Your task to perform on an android device: Open wifi settings Image 0: 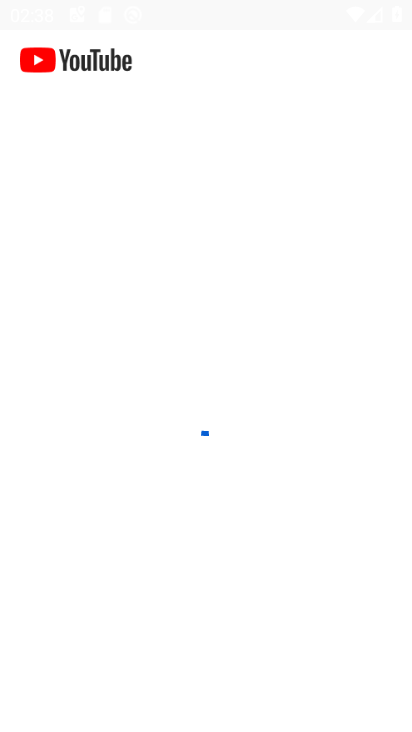
Step 0: click (154, 56)
Your task to perform on an android device: Open wifi settings Image 1: 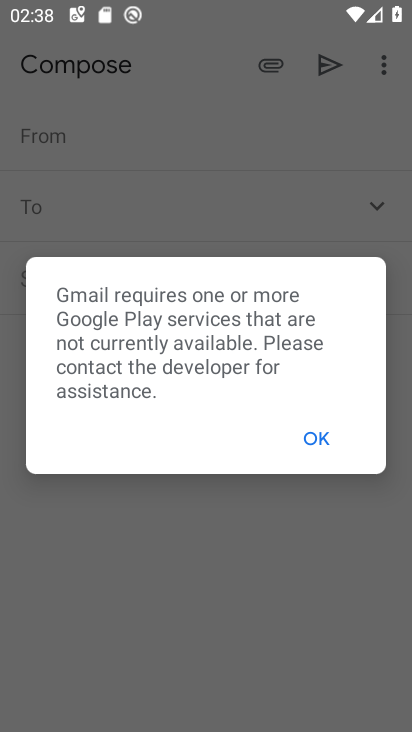
Step 1: press home button
Your task to perform on an android device: Open wifi settings Image 2: 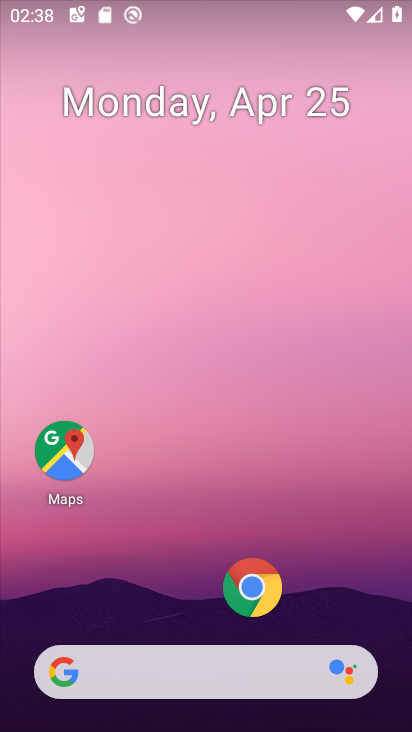
Step 2: drag from (206, 623) to (243, 113)
Your task to perform on an android device: Open wifi settings Image 3: 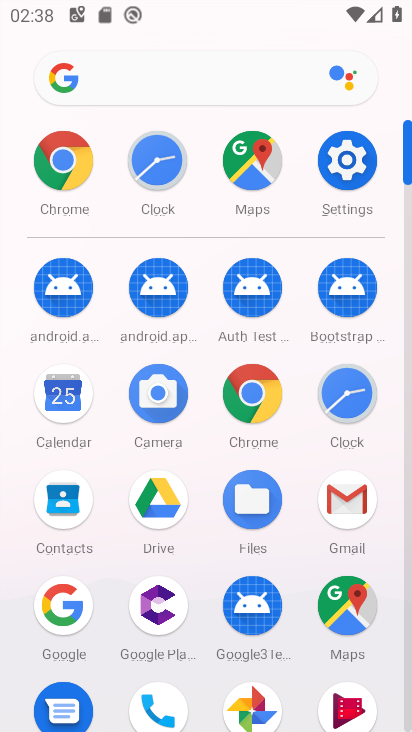
Step 3: click (345, 157)
Your task to perform on an android device: Open wifi settings Image 4: 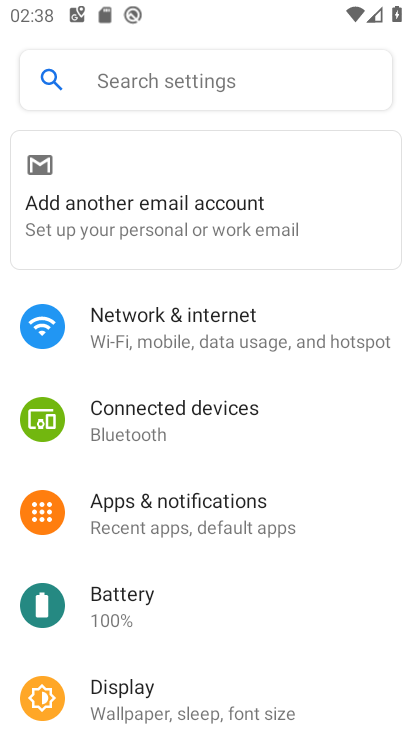
Step 4: click (279, 323)
Your task to perform on an android device: Open wifi settings Image 5: 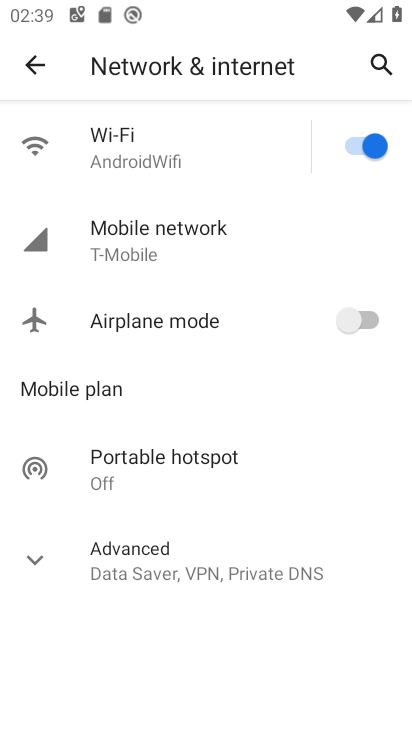
Step 5: click (227, 140)
Your task to perform on an android device: Open wifi settings Image 6: 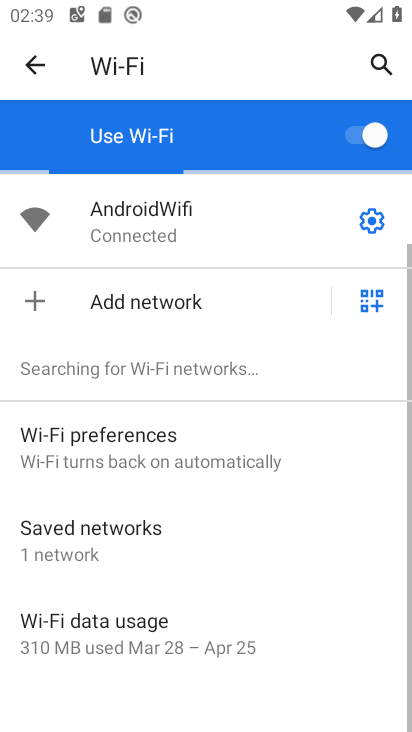
Step 6: task complete